Your task to perform on an android device: visit the assistant section in the google photos Image 0: 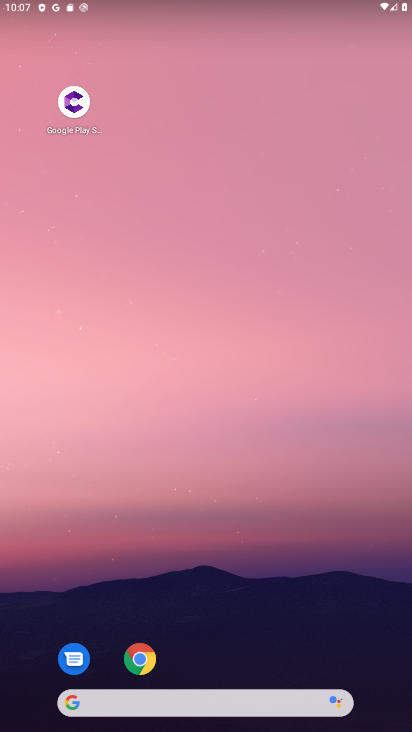
Step 0: drag from (204, 628) to (201, 214)
Your task to perform on an android device: visit the assistant section in the google photos Image 1: 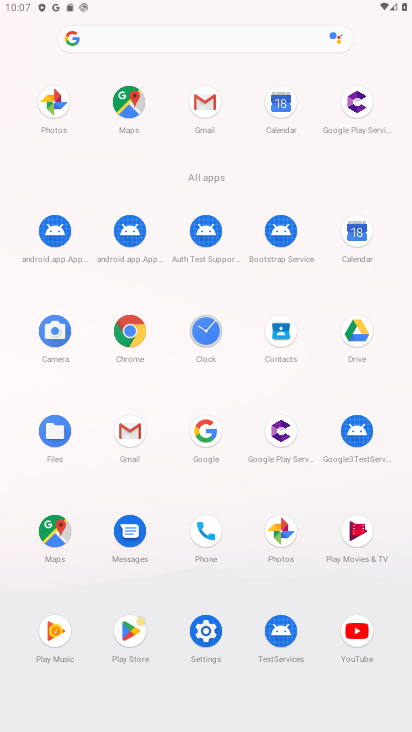
Step 1: click (268, 538)
Your task to perform on an android device: visit the assistant section in the google photos Image 2: 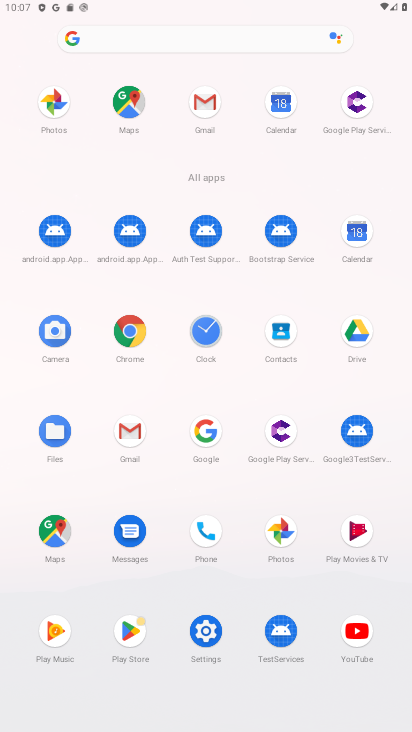
Step 2: click (277, 531)
Your task to perform on an android device: visit the assistant section in the google photos Image 3: 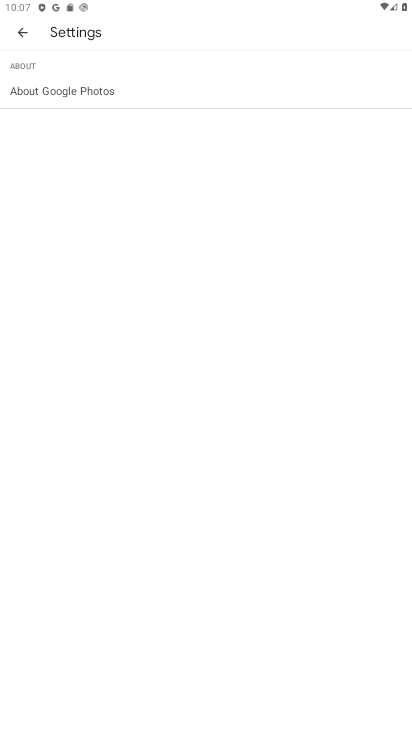
Step 3: click (277, 531)
Your task to perform on an android device: visit the assistant section in the google photos Image 4: 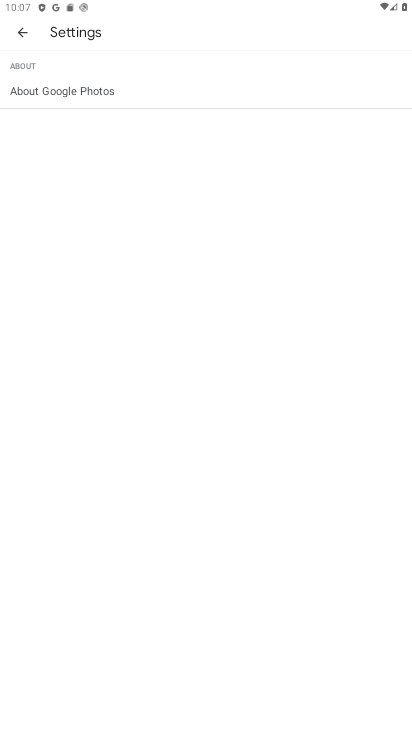
Step 4: click (277, 531)
Your task to perform on an android device: visit the assistant section in the google photos Image 5: 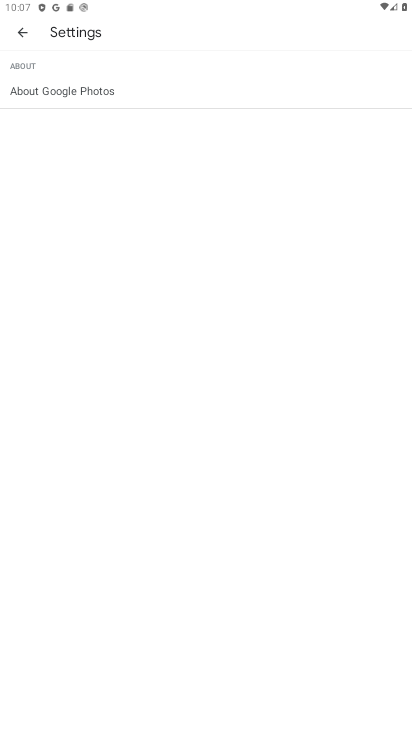
Step 5: click (22, 31)
Your task to perform on an android device: visit the assistant section in the google photos Image 6: 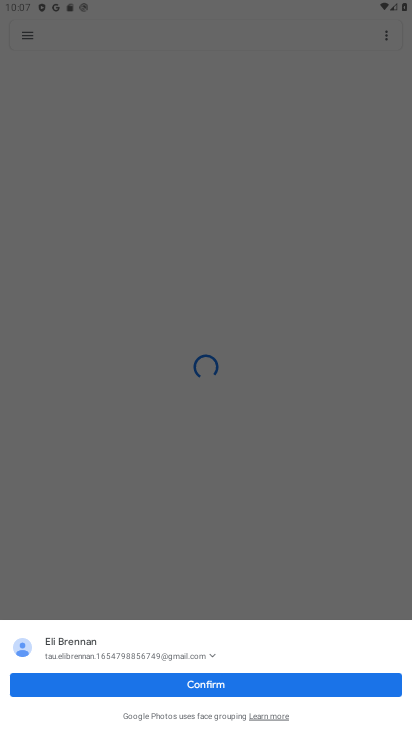
Step 6: click (254, 707)
Your task to perform on an android device: visit the assistant section in the google photos Image 7: 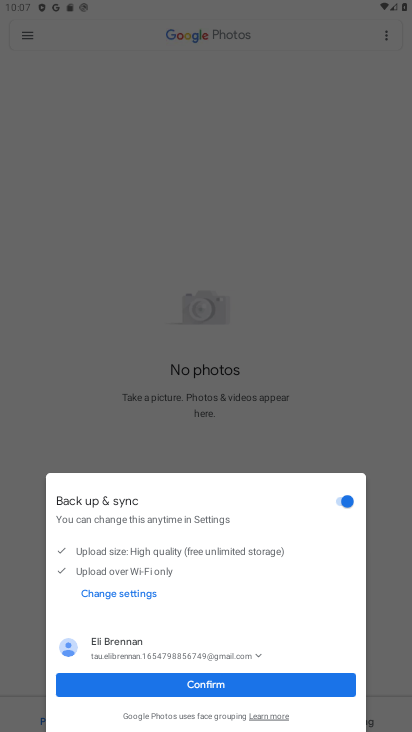
Step 7: click (237, 690)
Your task to perform on an android device: visit the assistant section in the google photos Image 8: 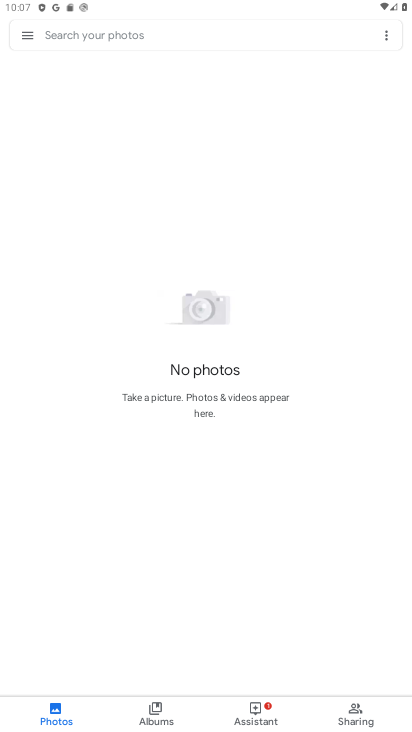
Step 8: click (251, 718)
Your task to perform on an android device: visit the assistant section in the google photos Image 9: 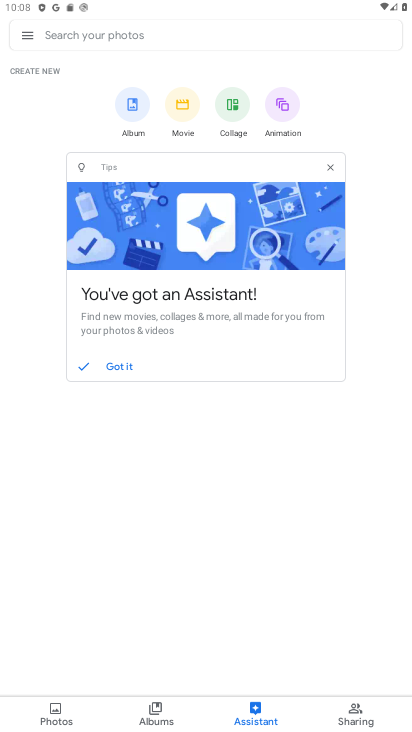
Step 9: task complete